Your task to perform on an android device: add a contact in the contacts app Image 0: 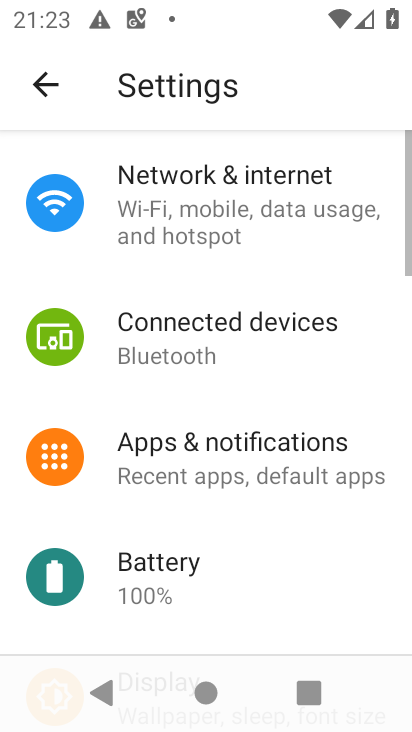
Step 0: press home button
Your task to perform on an android device: add a contact in the contacts app Image 1: 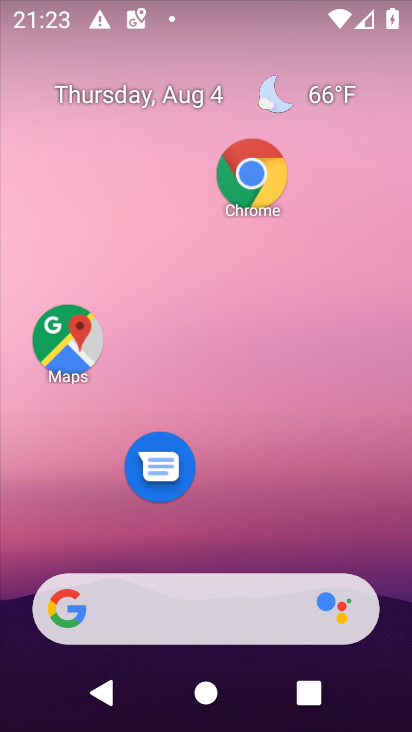
Step 1: drag from (282, 484) to (319, 17)
Your task to perform on an android device: add a contact in the contacts app Image 2: 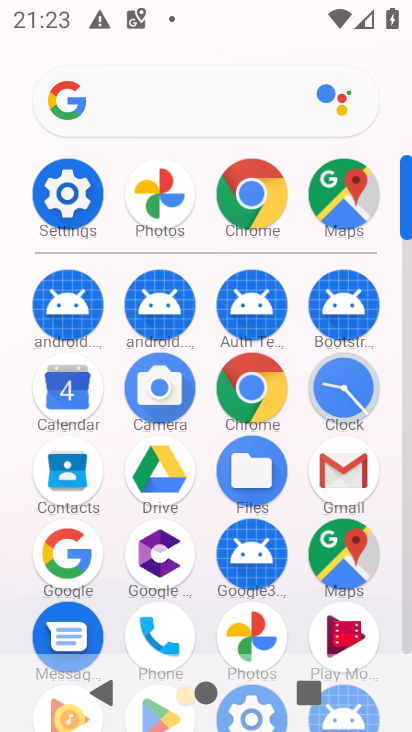
Step 2: drag from (191, 632) to (249, 200)
Your task to perform on an android device: add a contact in the contacts app Image 3: 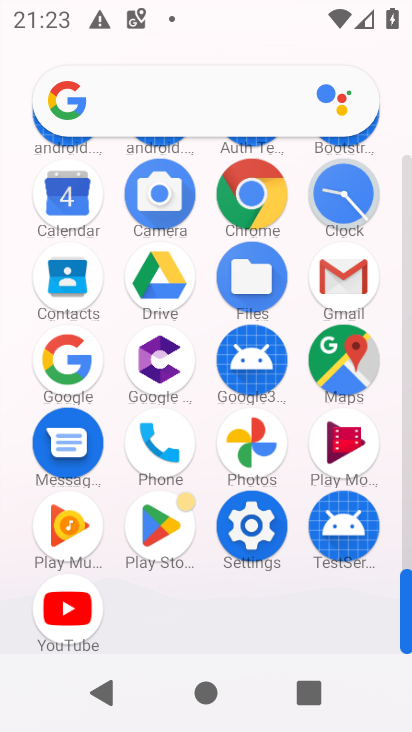
Step 3: click (70, 266)
Your task to perform on an android device: add a contact in the contacts app Image 4: 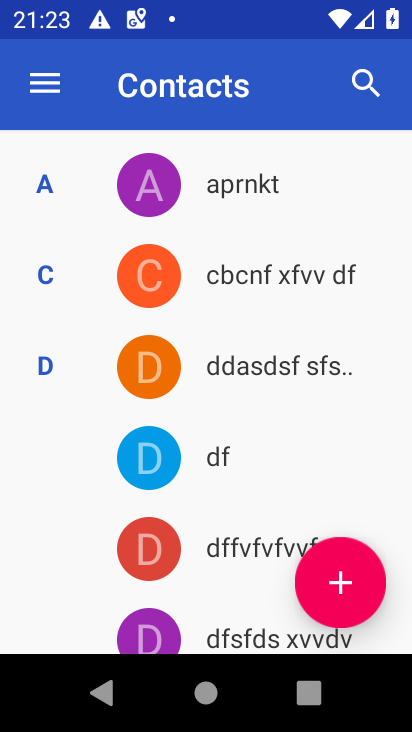
Step 4: click (361, 557)
Your task to perform on an android device: add a contact in the contacts app Image 5: 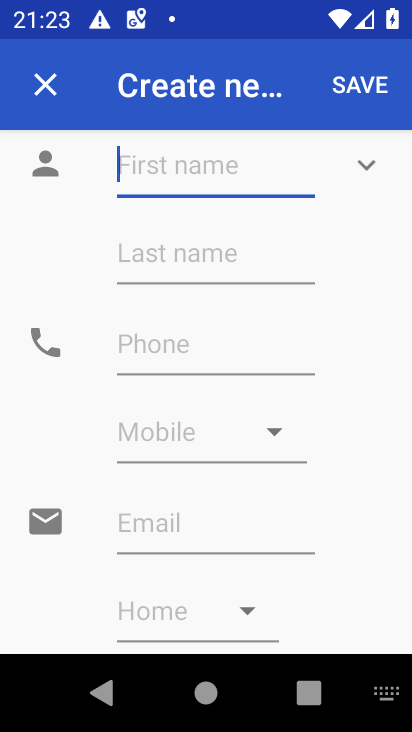
Step 5: type "yyuupp"
Your task to perform on an android device: add a contact in the contacts app Image 6: 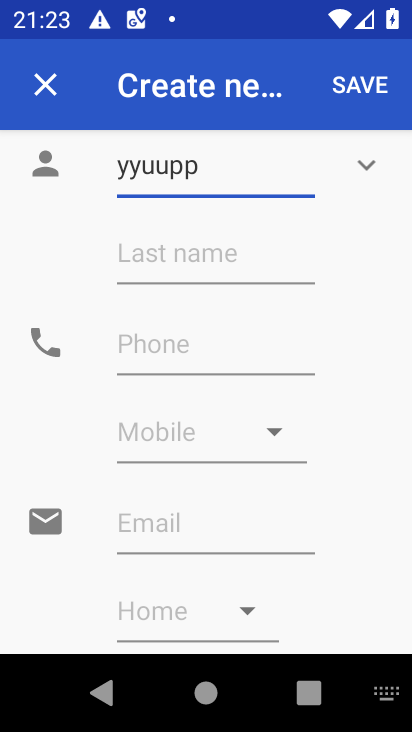
Step 6: click (194, 359)
Your task to perform on an android device: add a contact in the contacts app Image 7: 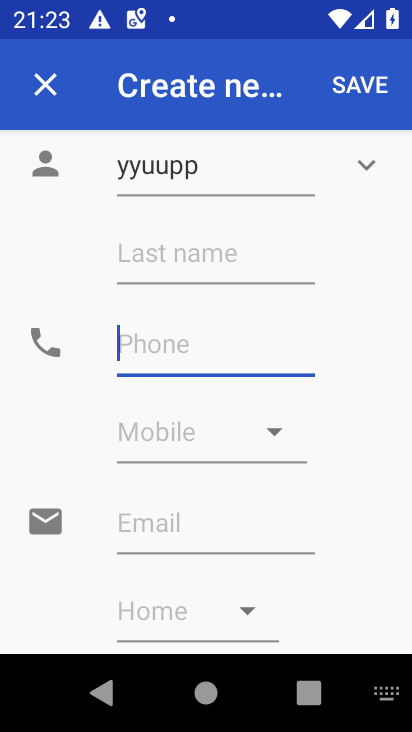
Step 7: type "3421"
Your task to perform on an android device: add a contact in the contacts app Image 8: 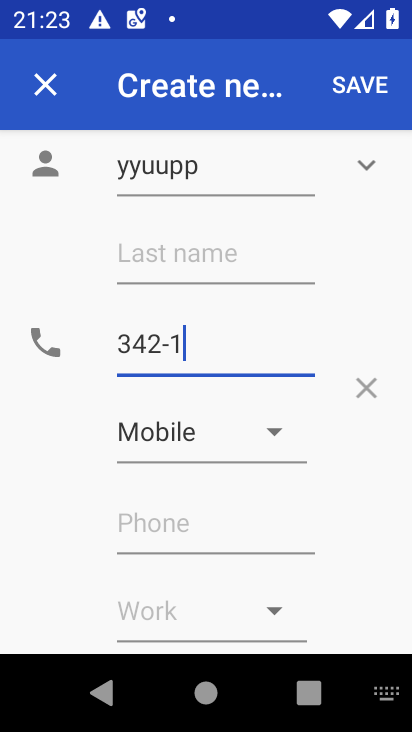
Step 8: click (380, 87)
Your task to perform on an android device: add a contact in the contacts app Image 9: 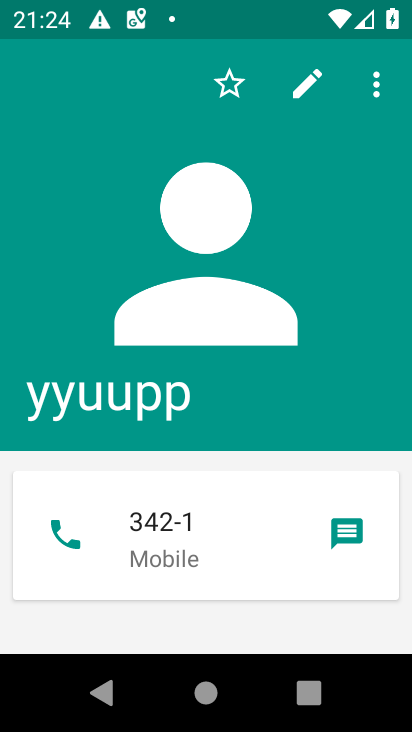
Step 9: task complete